Your task to perform on an android device: Is it going to rain today? Image 0: 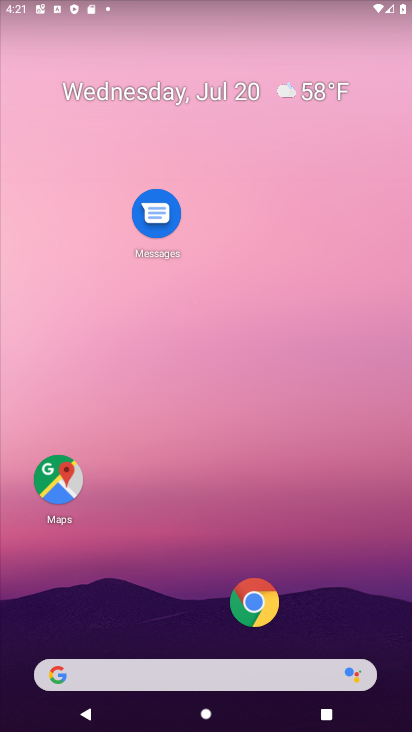
Step 0: click (161, 666)
Your task to perform on an android device: Is it going to rain today? Image 1: 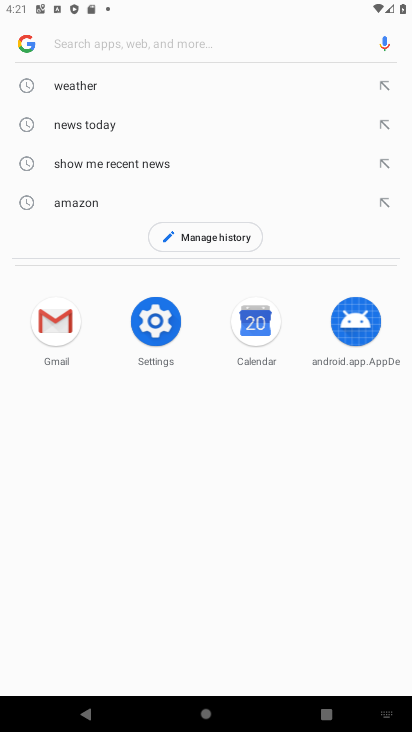
Step 1: click (91, 86)
Your task to perform on an android device: Is it going to rain today? Image 2: 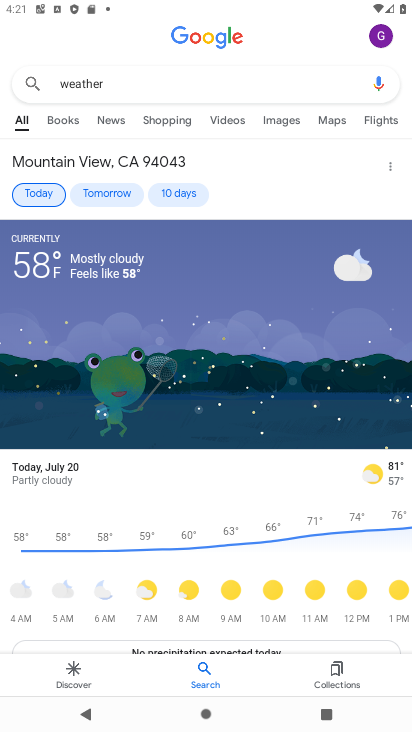
Step 2: task complete